Your task to perform on an android device: Search for Italian restaurants on Maps Image 0: 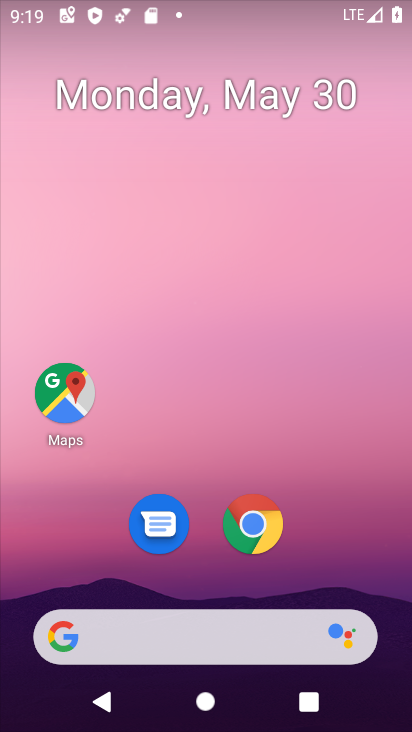
Step 0: click (80, 391)
Your task to perform on an android device: Search for Italian restaurants on Maps Image 1: 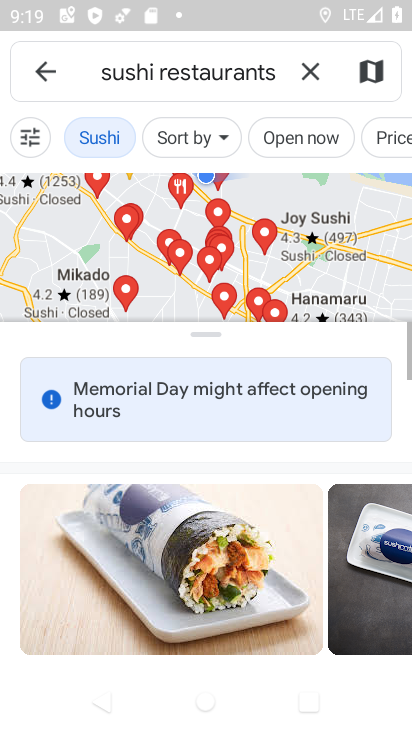
Step 1: click (309, 70)
Your task to perform on an android device: Search for Italian restaurants on Maps Image 2: 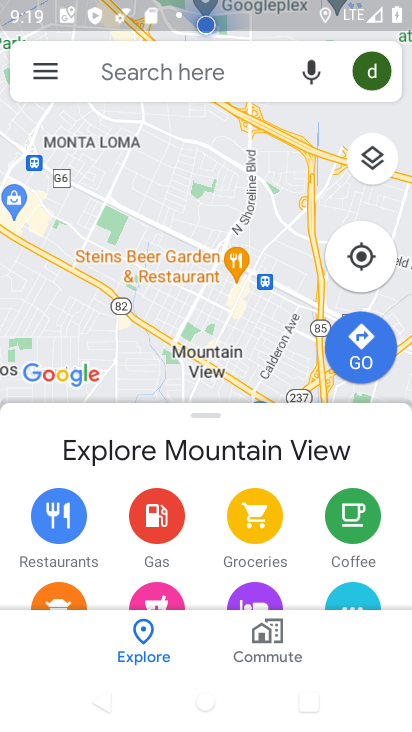
Step 2: click (182, 74)
Your task to perform on an android device: Search for Italian restaurants on Maps Image 3: 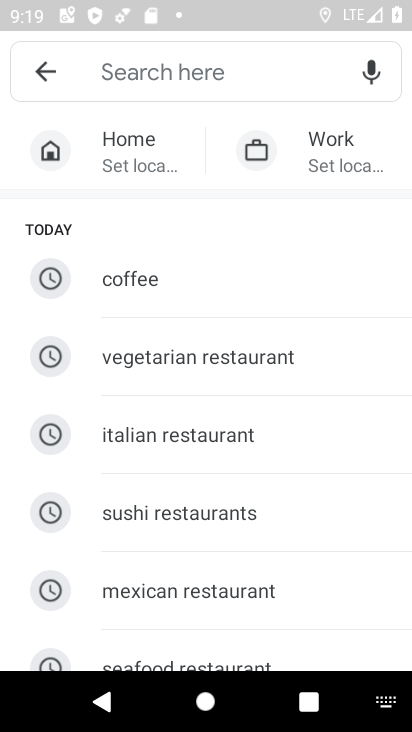
Step 3: click (200, 426)
Your task to perform on an android device: Search for Italian restaurants on Maps Image 4: 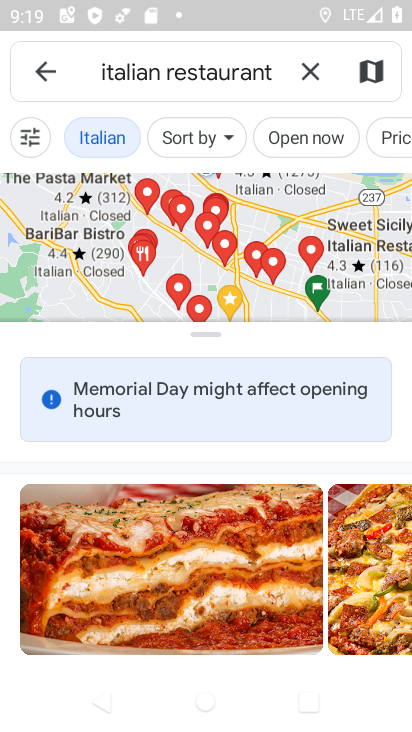
Step 4: task complete